Your task to perform on an android device: Open calendar and show me the second week of next month Image 0: 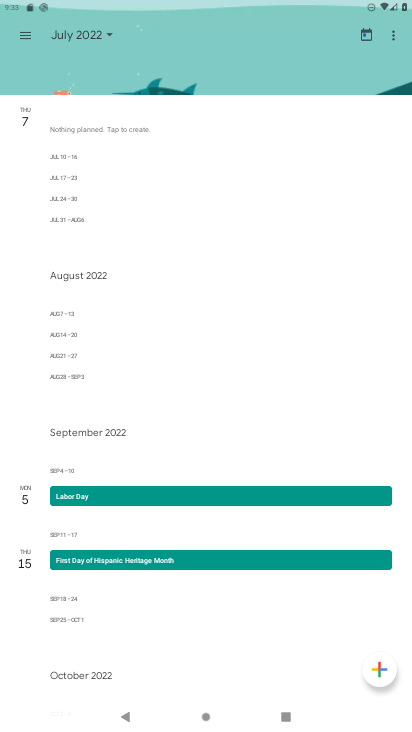
Step 0: press home button
Your task to perform on an android device: Open calendar and show me the second week of next month Image 1: 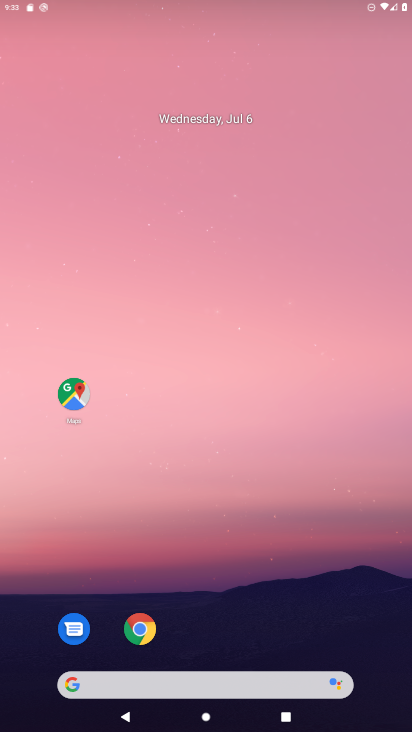
Step 1: drag from (219, 607) to (267, 10)
Your task to perform on an android device: Open calendar and show me the second week of next month Image 2: 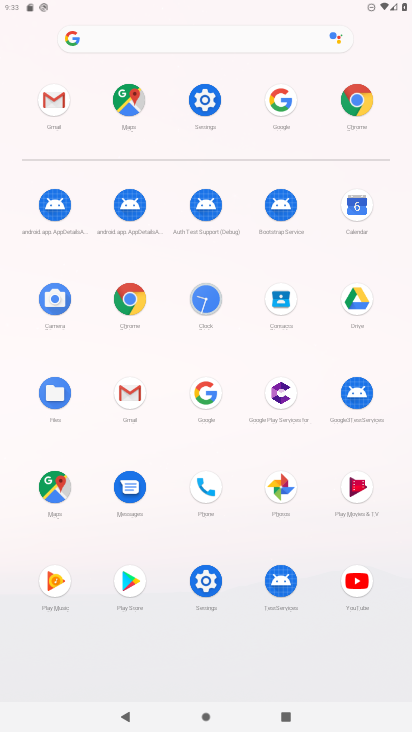
Step 2: click (360, 216)
Your task to perform on an android device: Open calendar and show me the second week of next month Image 3: 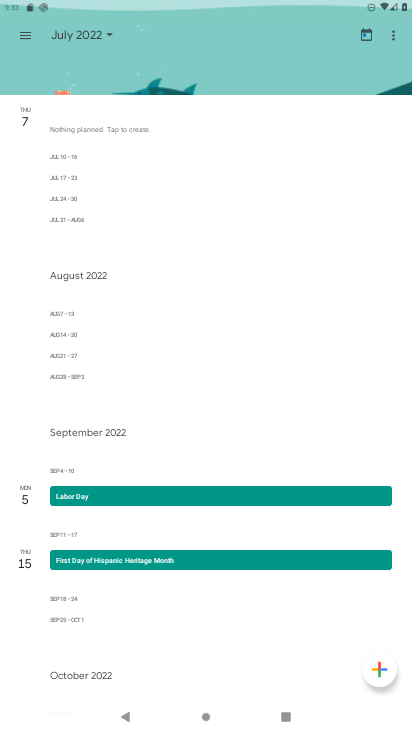
Step 3: click (109, 32)
Your task to perform on an android device: Open calendar and show me the second week of next month Image 4: 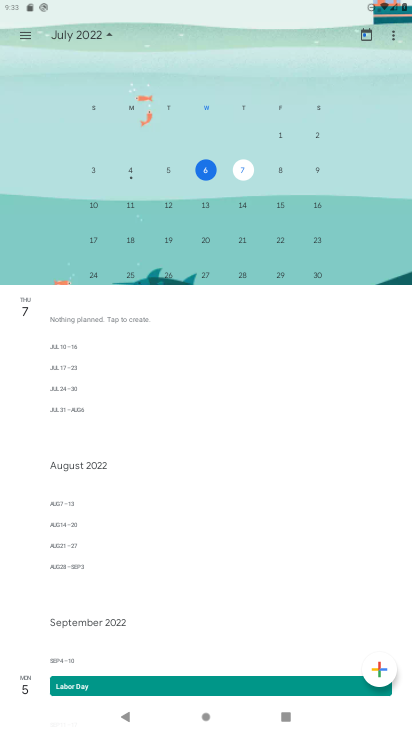
Step 4: drag from (340, 227) to (6, 254)
Your task to perform on an android device: Open calendar and show me the second week of next month Image 5: 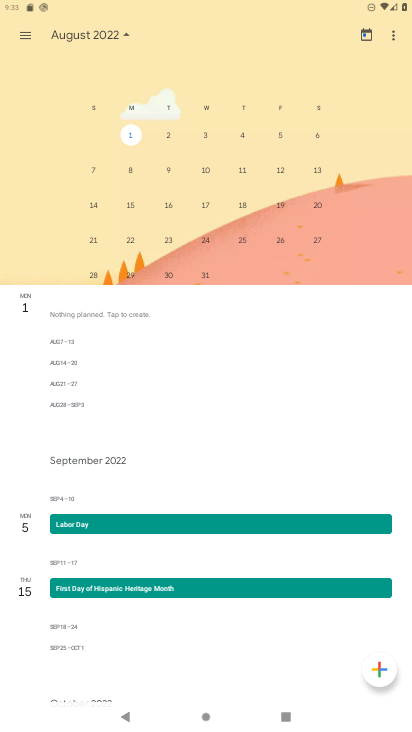
Step 5: click (211, 171)
Your task to perform on an android device: Open calendar and show me the second week of next month Image 6: 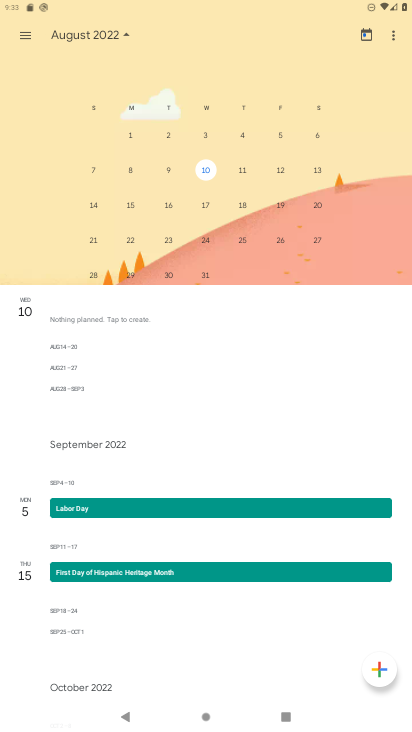
Step 6: click (22, 35)
Your task to perform on an android device: Open calendar and show me the second week of next month Image 7: 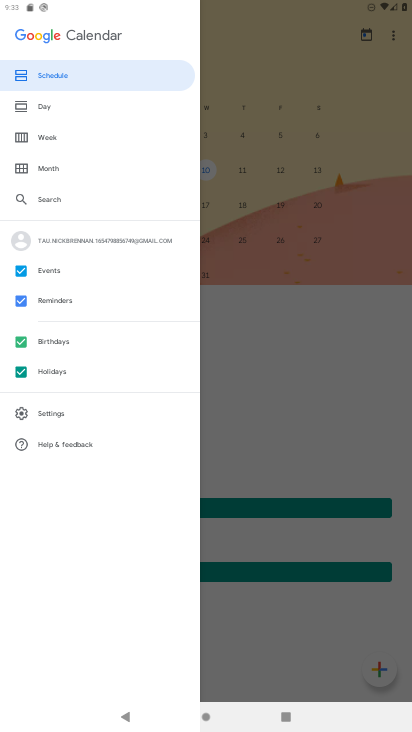
Step 7: click (55, 133)
Your task to perform on an android device: Open calendar and show me the second week of next month Image 8: 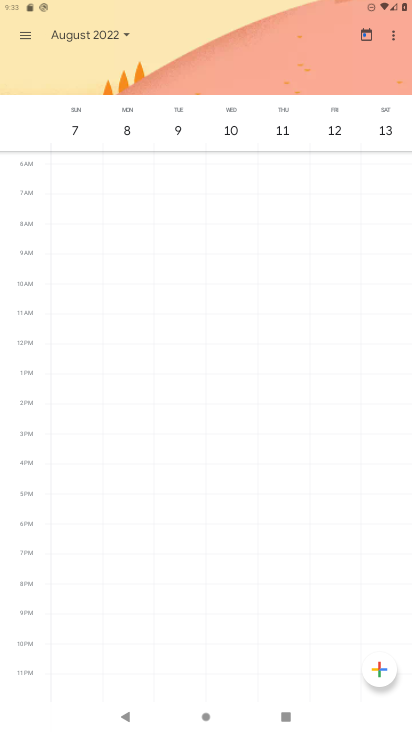
Step 8: task complete